Your task to perform on an android device: Go to Reddit.com Image 0: 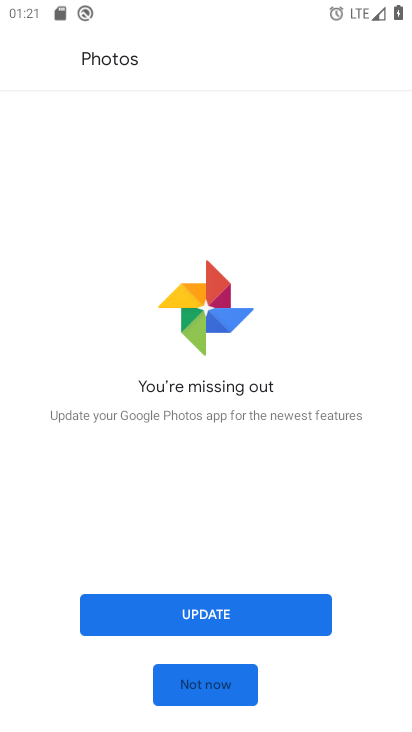
Step 0: press home button
Your task to perform on an android device: Go to Reddit.com Image 1: 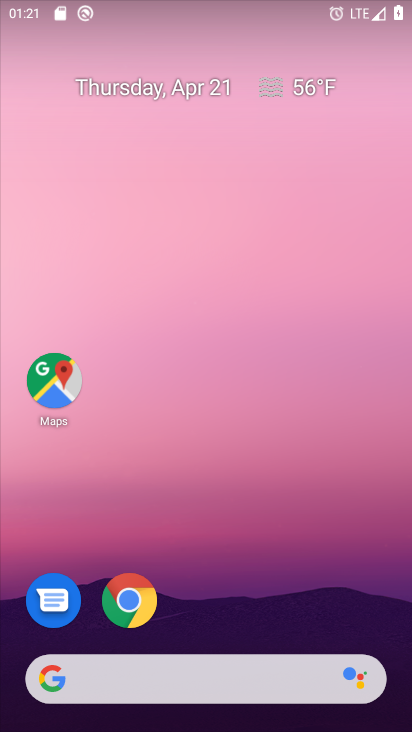
Step 1: click (198, 681)
Your task to perform on an android device: Go to Reddit.com Image 2: 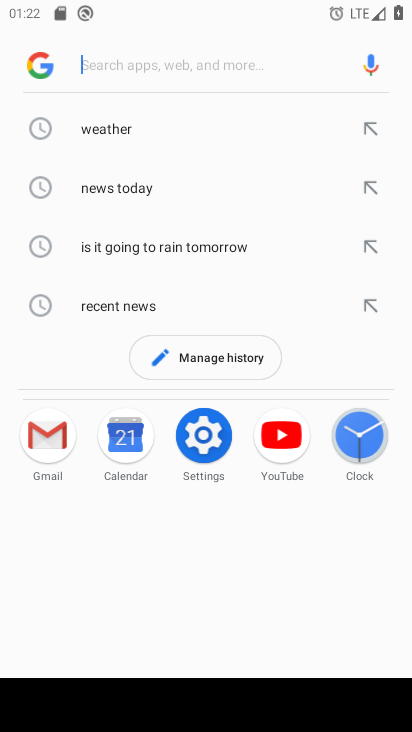
Step 2: type "reddit.com"
Your task to perform on an android device: Go to Reddit.com Image 3: 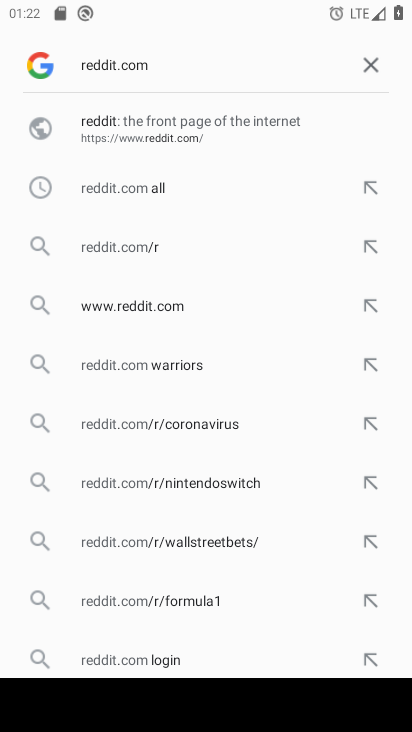
Step 3: click (233, 121)
Your task to perform on an android device: Go to Reddit.com Image 4: 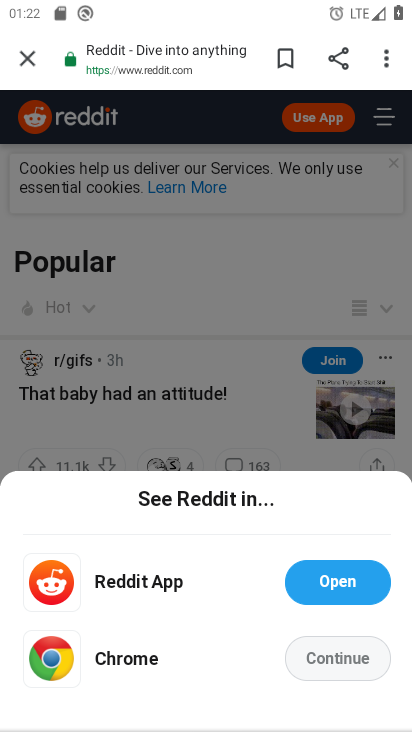
Step 4: task complete